Your task to perform on an android device: Open battery settings Image 0: 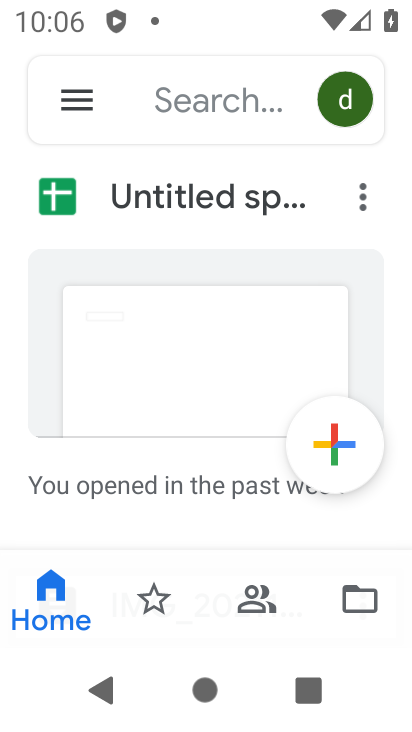
Step 0: press home button
Your task to perform on an android device: Open battery settings Image 1: 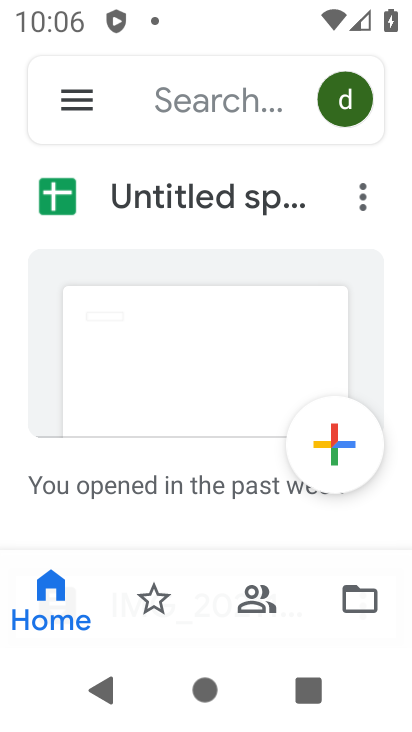
Step 1: press home button
Your task to perform on an android device: Open battery settings Image 2: 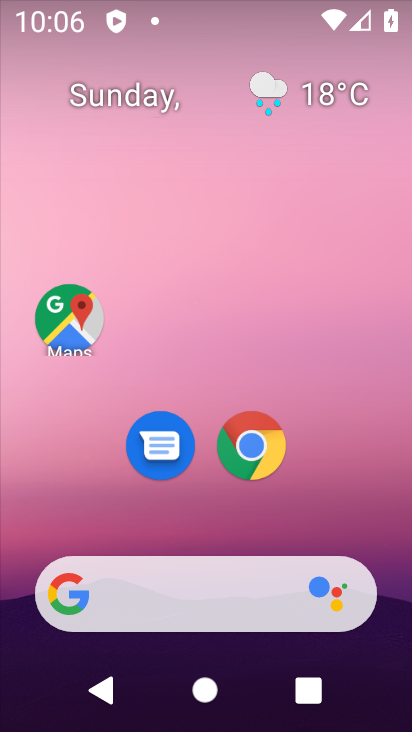
Step 2: drag from (202, 511) to (239, 90)
Your task to perform on an android device: Open battery settings Image 3: 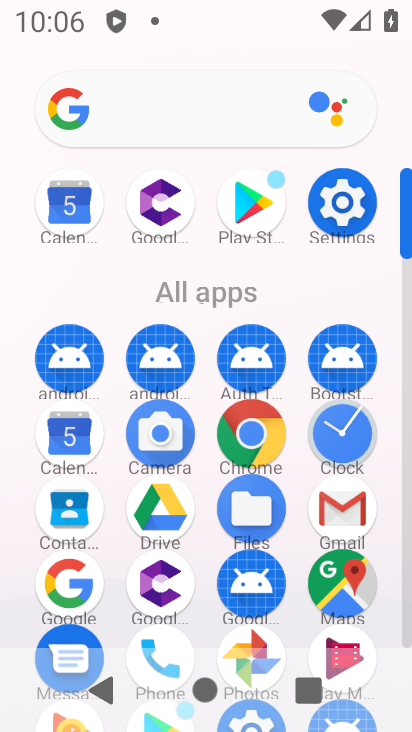
Step 3: click (351, 191)
Your task to perform on an android device: Open battery settings Image 4: 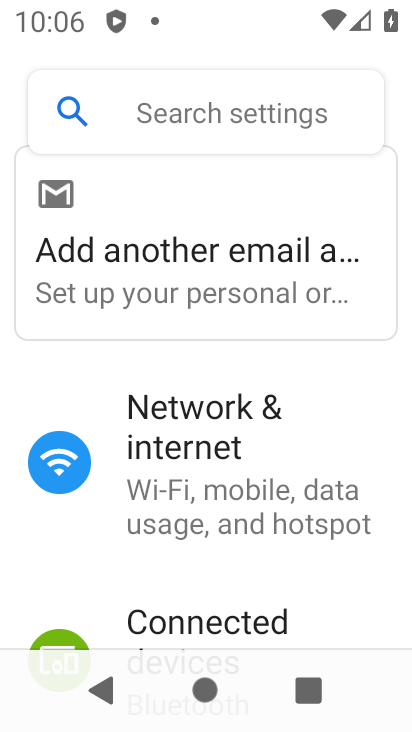
Step 4: drag from (220, 597) to (213, 75)
Your task to perform on an android device: Open battery settings Image 5: 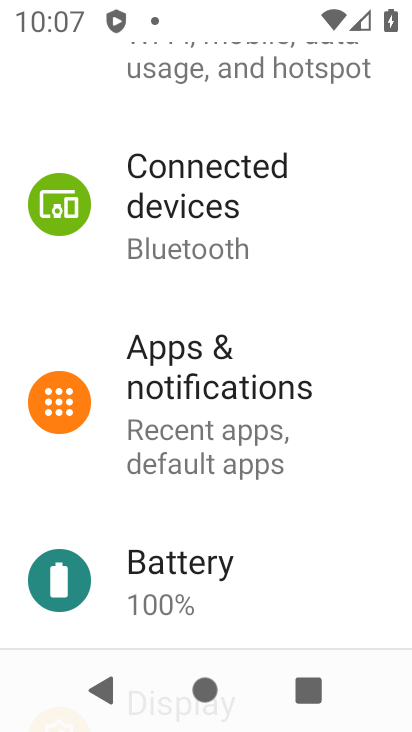
Step 5: click (211, 593)
Your task to perform on an android device: Open battery settings Image 6: 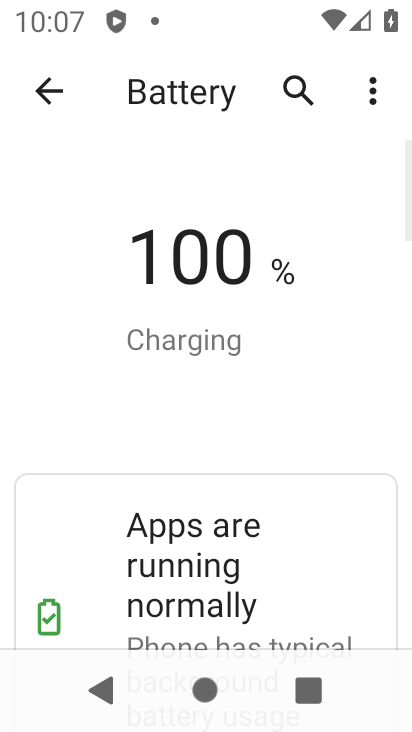
Step 6: task complete